Your task to perform on an android device: Open notification settings Image 0: 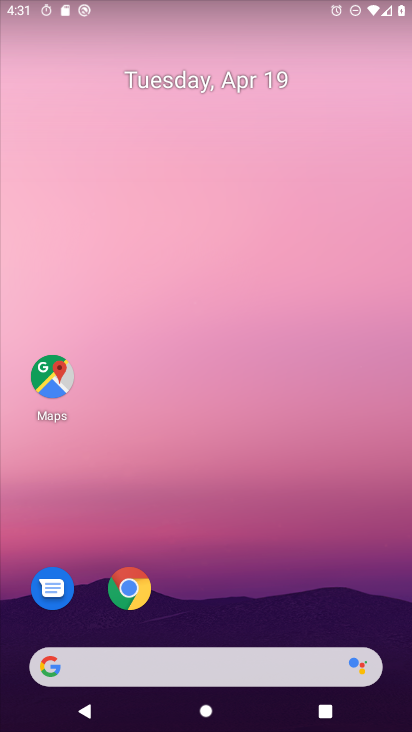
Step 0: drag from (216, 407) to (198, 106)
Your task to perform on an android device: Open notification settings Image 1: 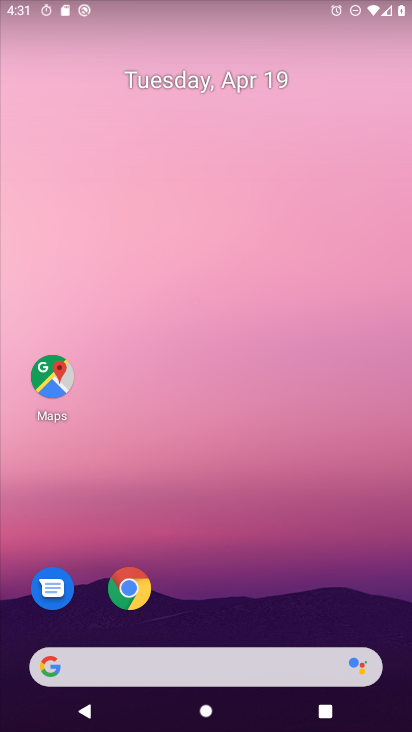
Step 1: drag from (244, 456) to (272, 60)
Your task to perform on an android device: Open notification settings Image 2: 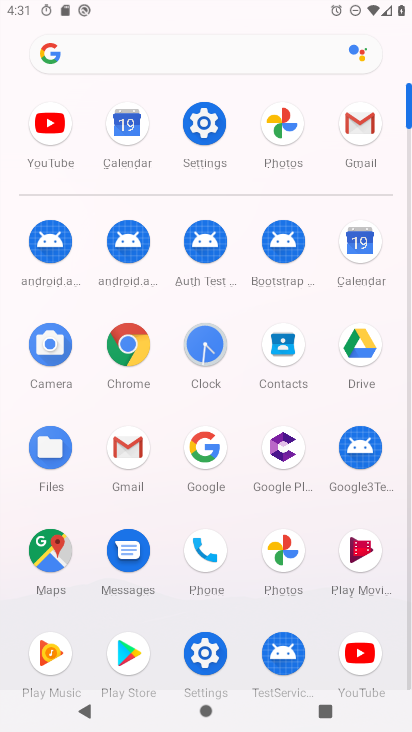
Step 2: click (202, 116)
Your task to perform on an android device: Open notification settings Image 3: 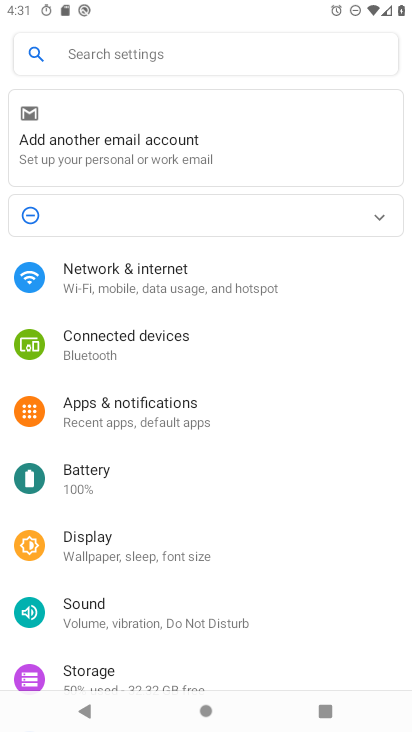
Step 3: click (138, 415)
Your task to perform on an android device: Open notification settings Image 4: 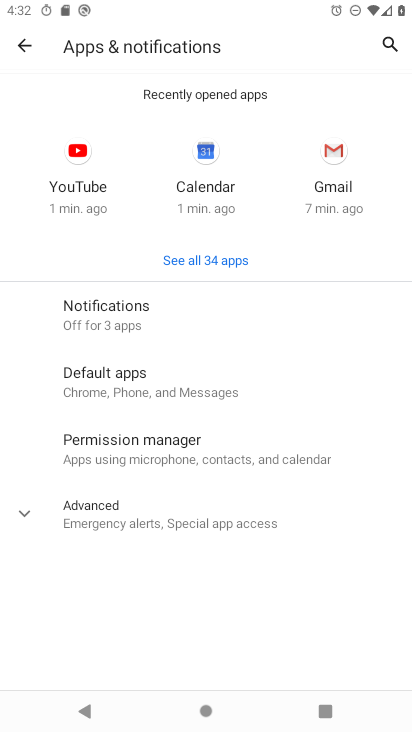
Step 4: task complete